Your task to perform on an android device: turn off improve location accuracy Image 0: 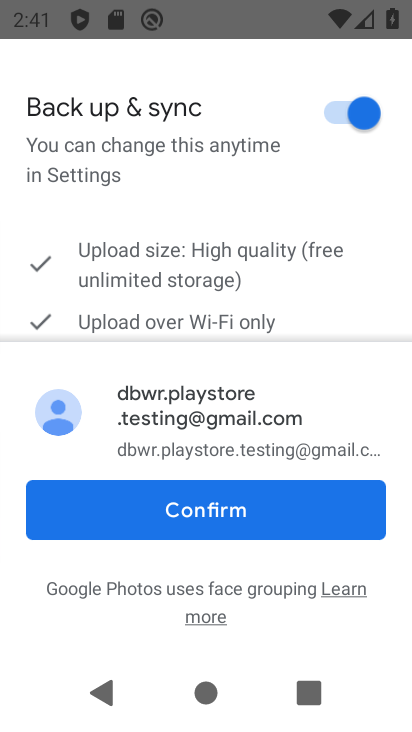
Step 0: press home button
Your task to perform on an android device: turn off improve location accuracy Image 1: 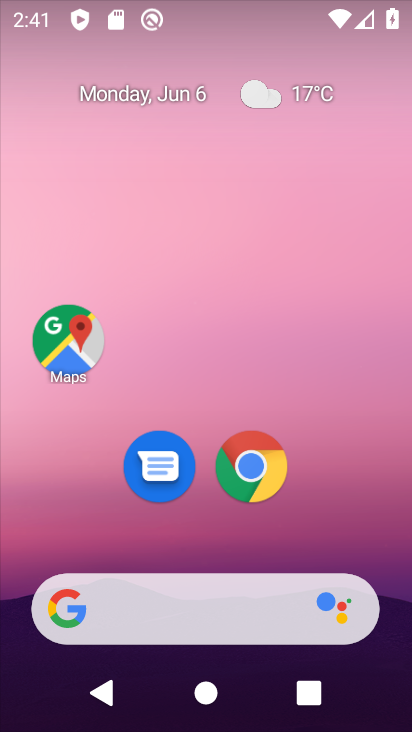
Step 1: drag from (333, 498) to (274, 7)
Your task to perform on an android device: turn off improve location accuracy Image 2: 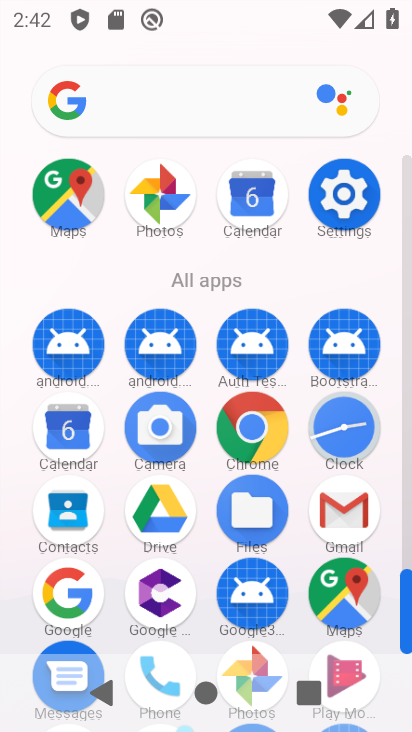
Step 2: click (358, 211)
Your task to perform on an android device: turn off improve location accuracy Image 3: 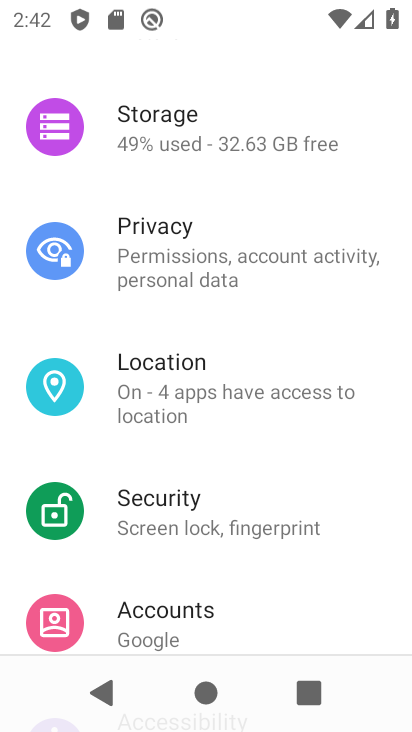
Step 3: click (227, 400)
Your task to perform on an android device: turn off improve location accuracy Image 4: 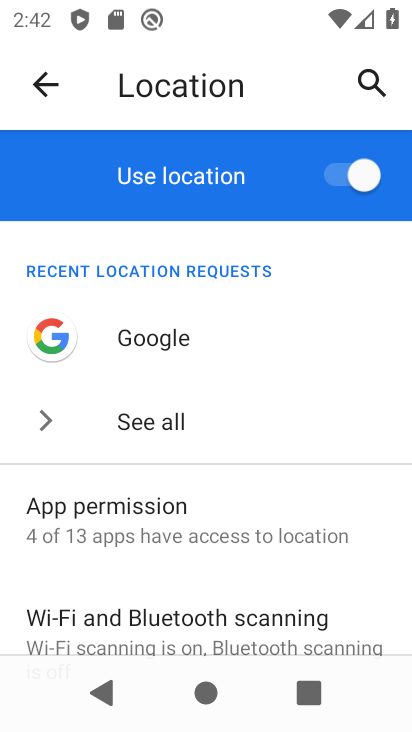
Step 4: drag from (288, 444) to (283, 61)
Your task to perform on an android device: turn off improve location accuracy Image 5: 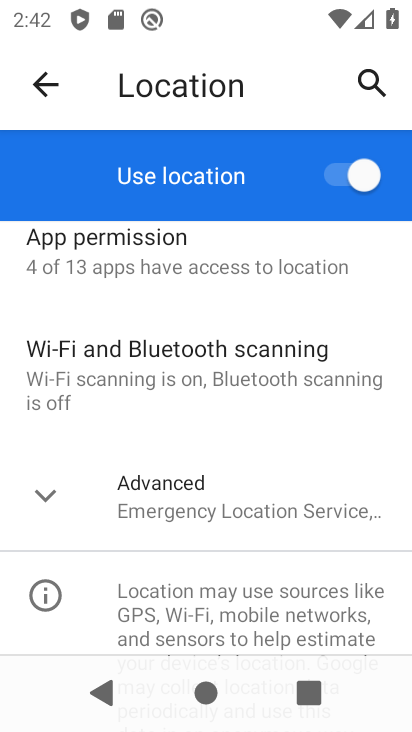
Step 5: click (237, 501)
Your task to perform on an android device: turn off improve location accuracy Image 6: 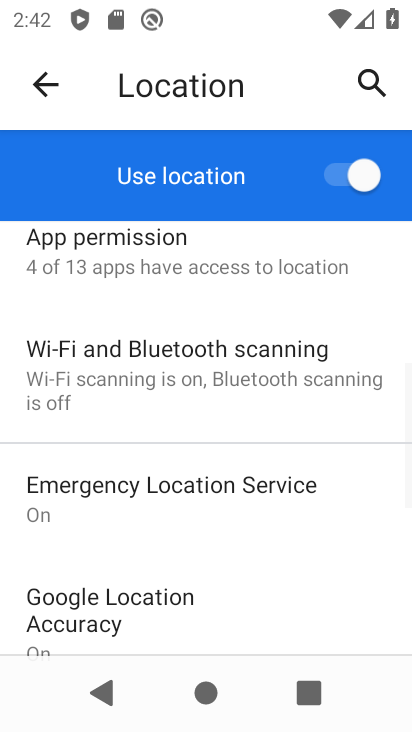
Step 6: drag from (259, 610) to (289, 209)
Your task to perform on an android device: turn off improve location accuracy Image 7: 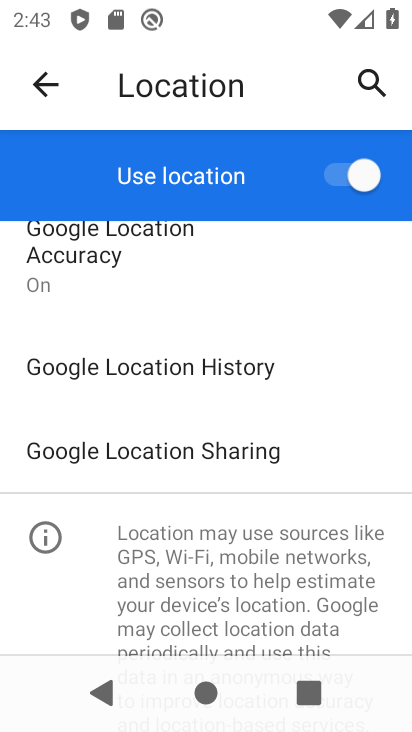
Step 7: click (157, 263)
Your task to perform on an android device: turn off improve location accuracy Image 8: 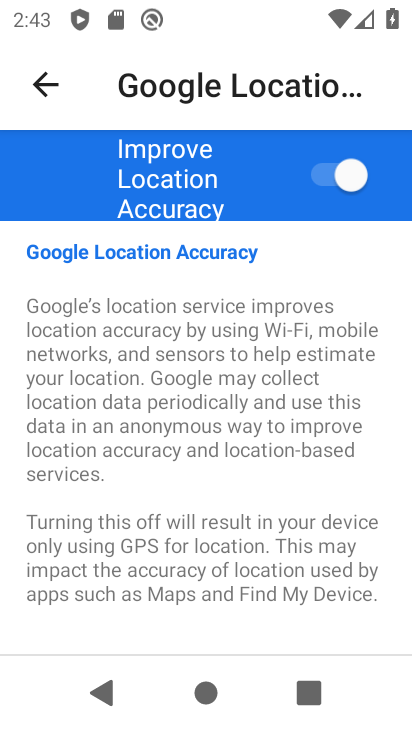
Step 8: click (347, 175)
Your task to perform on an android device: turn off improve location accuracy Image 9: 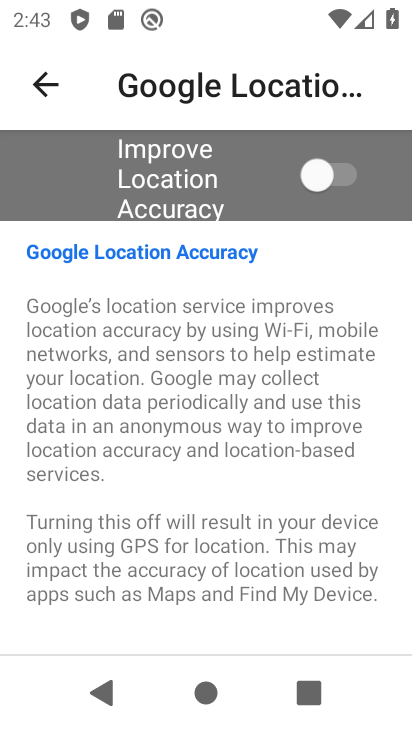
Step 9: task complete